Your task to perform on an android device: Open network settings Image 0: 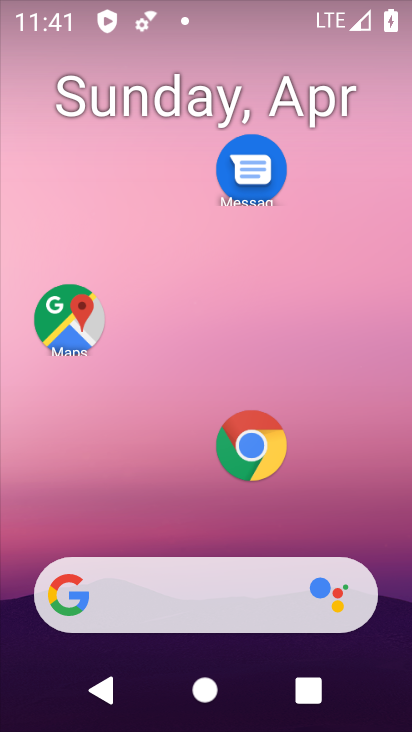
Step 0: drag from (133, 591) to (336, 9)
Your task to perform on an android device: Open network settings Image 1: 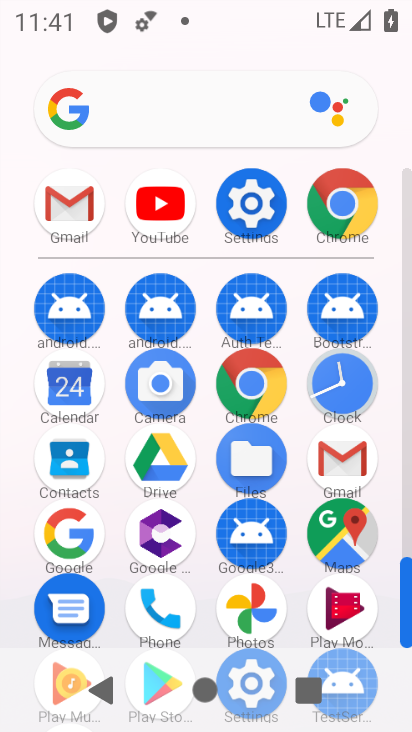
Step 1: click (268, 214)
Your task to perform on an android device: Open network settings Image 2: 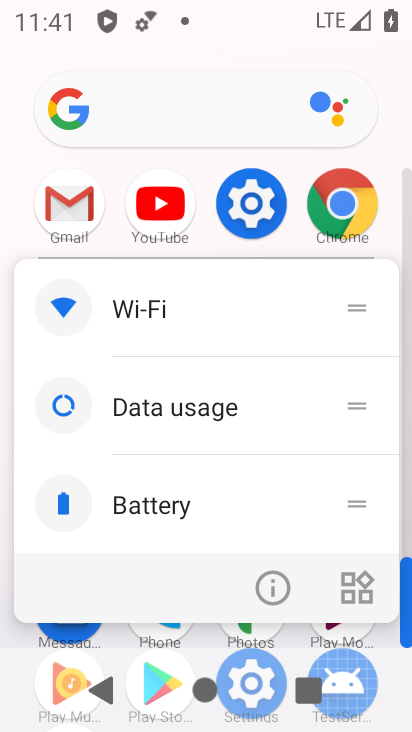
Step 2: click (255, 202)
Your task to perform on an android device: Open network settings Image 3: 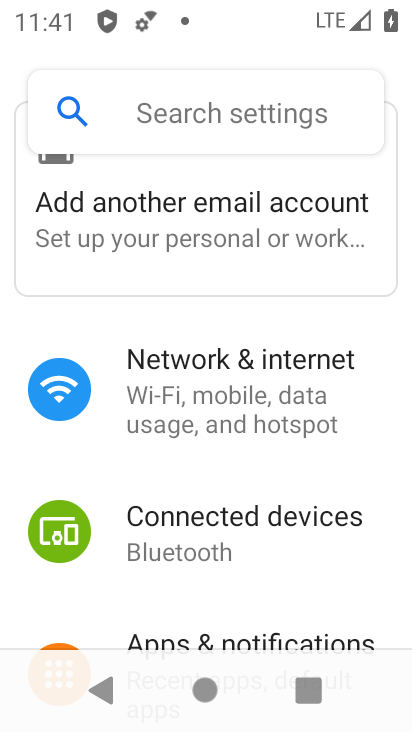
Step 3: click (251, 379)
Your task to perform on an android device: Open network settings Image 4: 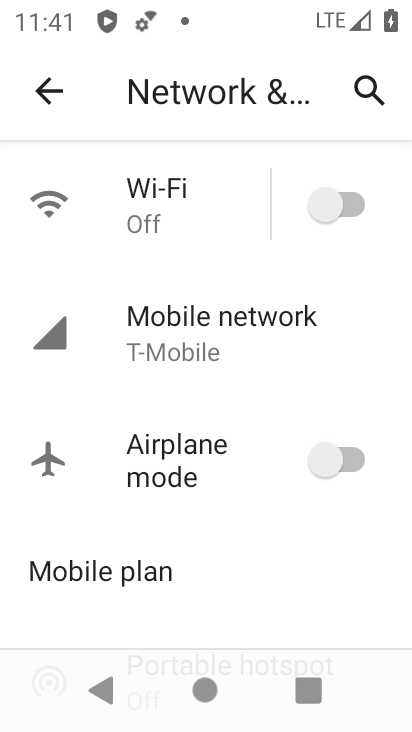
Step 4: task complete